Your task to perform on an android device: turn off translation in the chrome app Image 0: 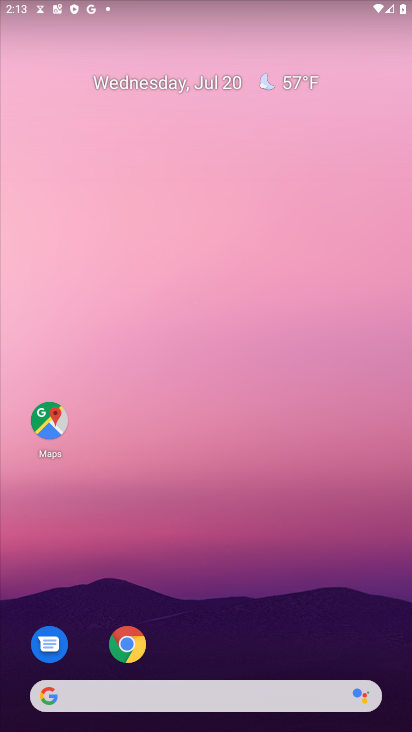
Step 0: press home button
Your task to perform on an android device: turn off translation in the chrome app Image 1: 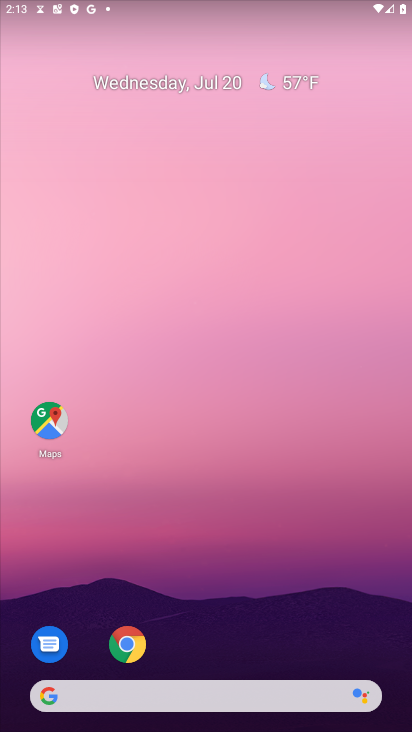
Step 1: drag from (197, 655) to (215, 39)
Your task to perform on an android device: turn off translation in the chrome app Image 2: 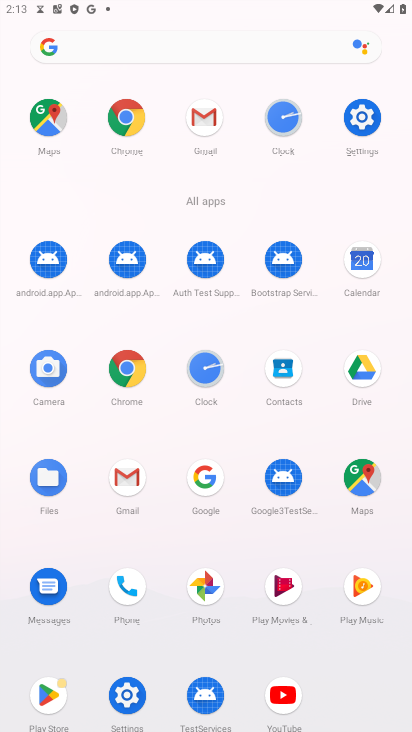
Step 2: click (122, 122)
Your task to perform on an android device: turn off translation in the chrome app Image 3: 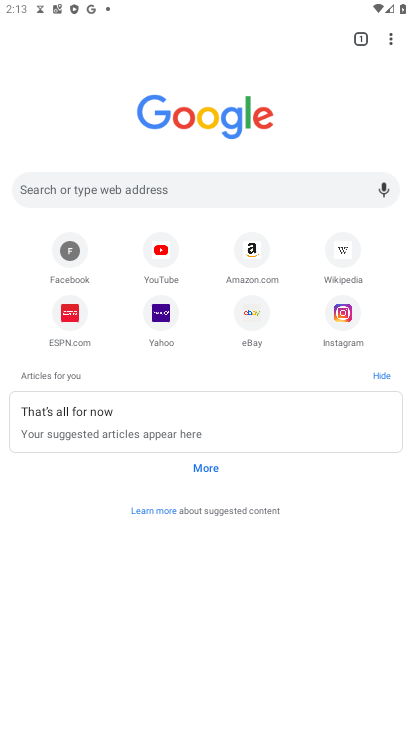
Step 3: drag from (394, 40) to (263, 320)
Your task to perform on an android device: turn off translation in the chrome app Image 4: 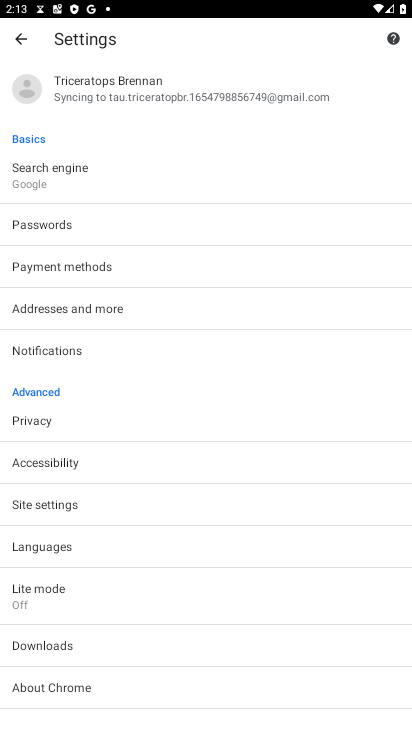
Step 4: click (41, 542)
Your task to perform on an android device: turn off translation in the chrome app Image 5: 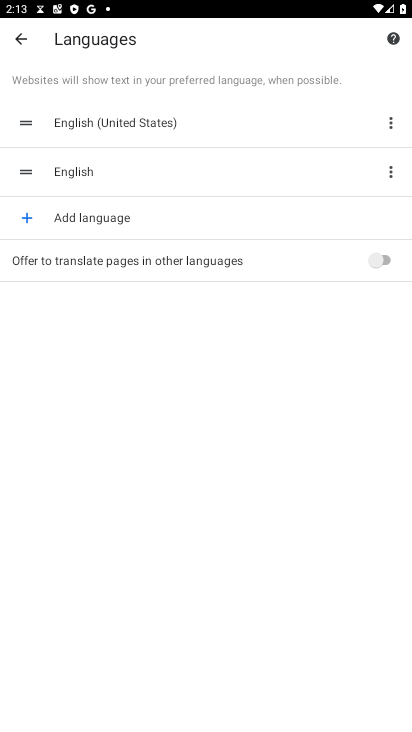
Step 5: task complete